Your task to perform on an android device: Open Google Chrome and click the shortcut for Amazon.com Image 0: 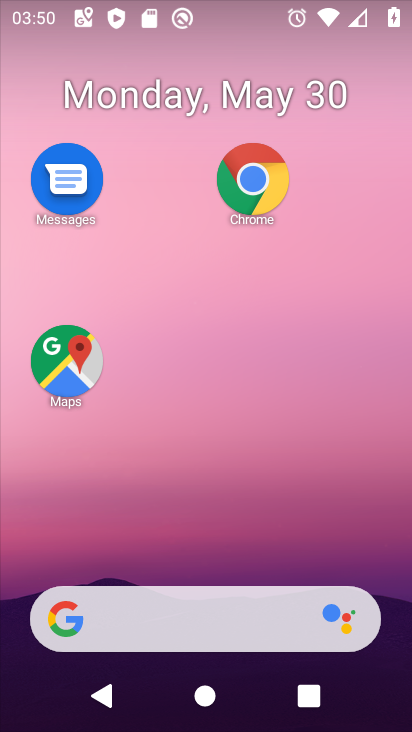
Step 0: click (245, 197)
Your task to perform on an android device: Open Google Chrome and click the shortcut for Amazon.com Image 1: 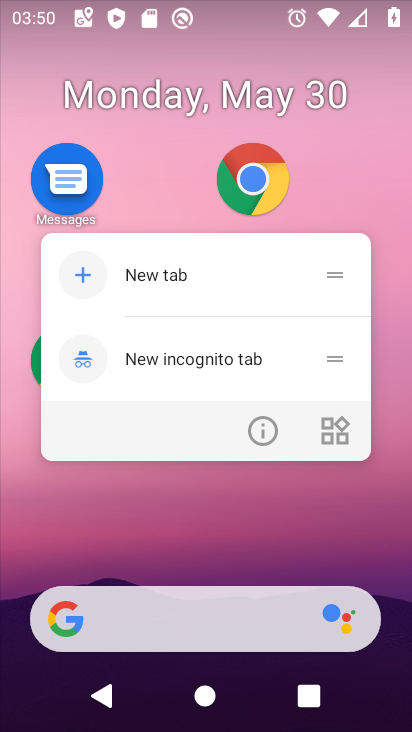
Step 1: click (248, 170)
Your task to perform on an android device: Open Google Chrome and click the shortcut for Amazon.com Image 2: 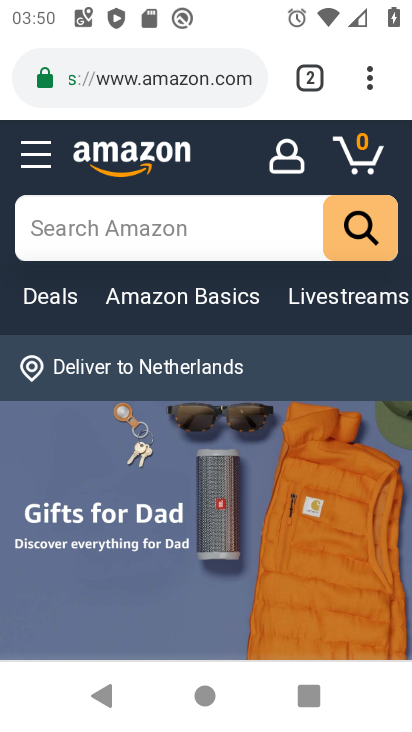
Step 2: press back button
Your task to perform on an android device: Open Google Chrome and click the shortcut for Amazon.com Image 3: 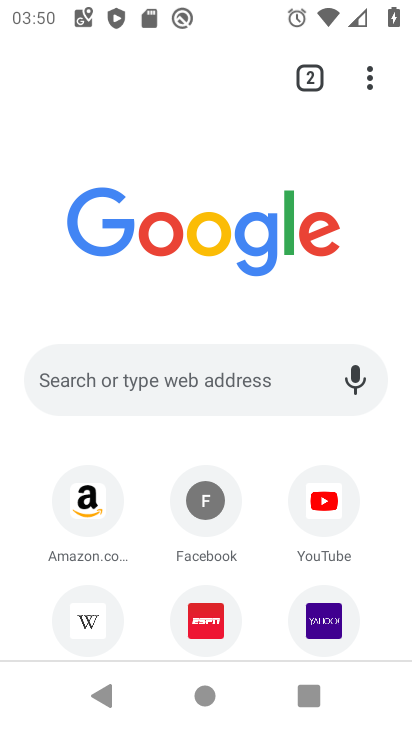
Step 3: click (88, 499)
Your task to perform on an android device: Open Google Chrome and click the shortcut for Amazon.com Image 4: 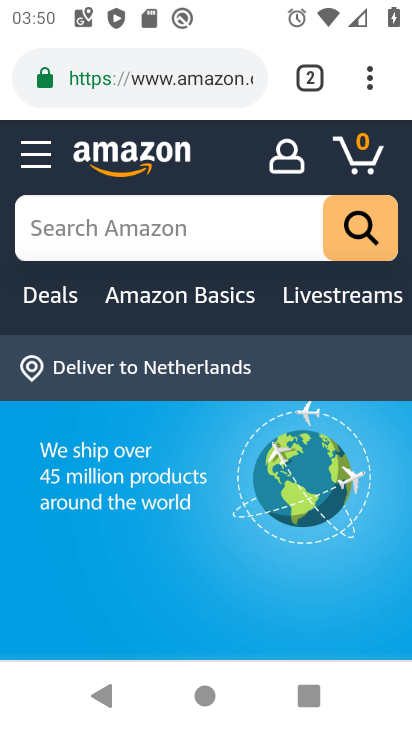
Step 4: task complete